Your task to perform on an android device: Open network settings Image 0: 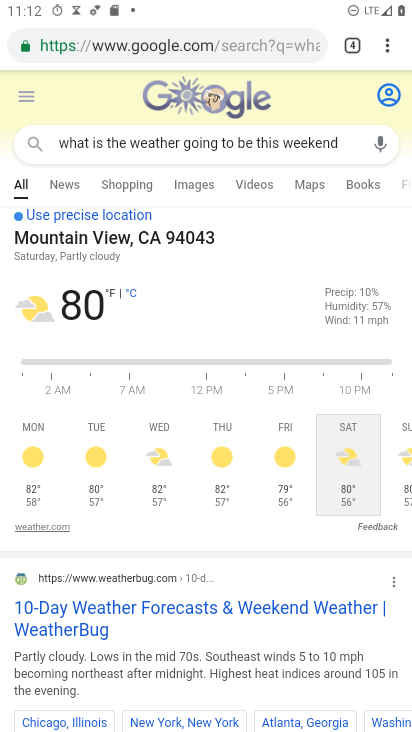
Step 0: press home button
Your task to perform on an android device: Open network settings Image 1: 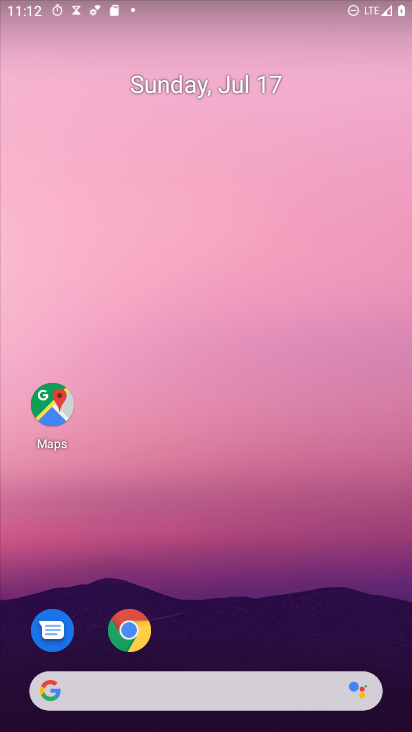
Step 1: drag from (235, 688) to (250, 1)
Your task to perform on an android device: Open network settings Image 2: 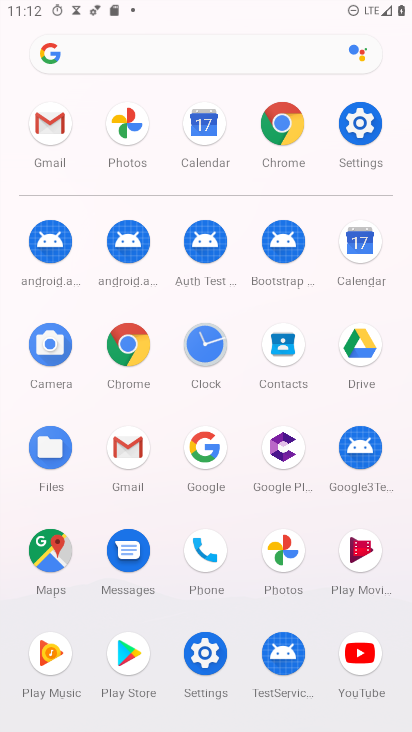
Step 2: click (381, 121)
Your task to perform on an android device: Open network settings Image 3: 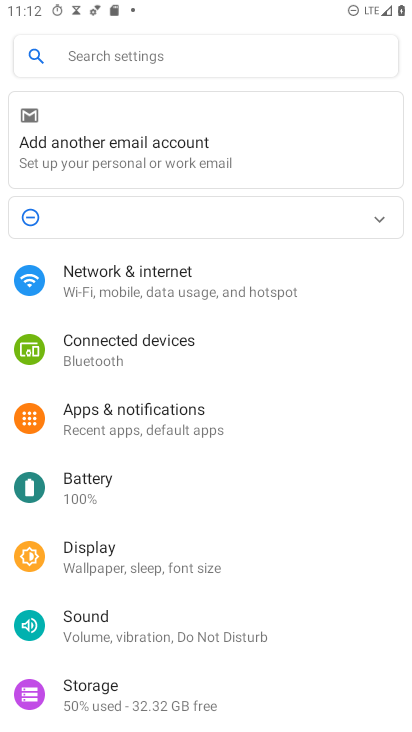
Step 3: click (135, 279)
Your task to perform on an android device: Open network settings Image 4: 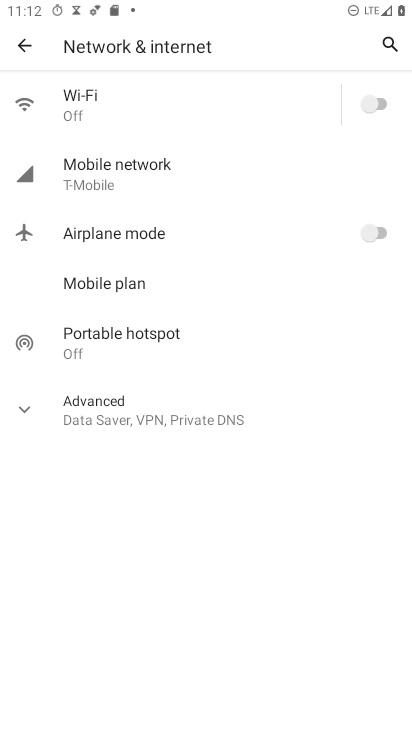
Step 4: task complete